Your task to perform on an android device: turn off sleep mode Image 0: 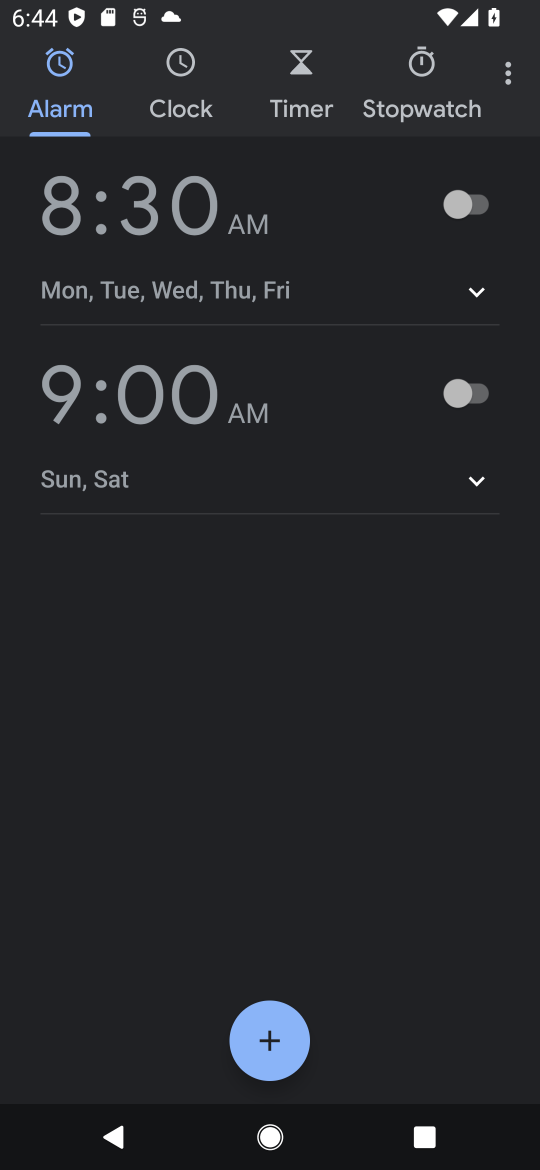
Step 0: press home button
Your task to perform on an android device: turn off sleep mode Image 1: 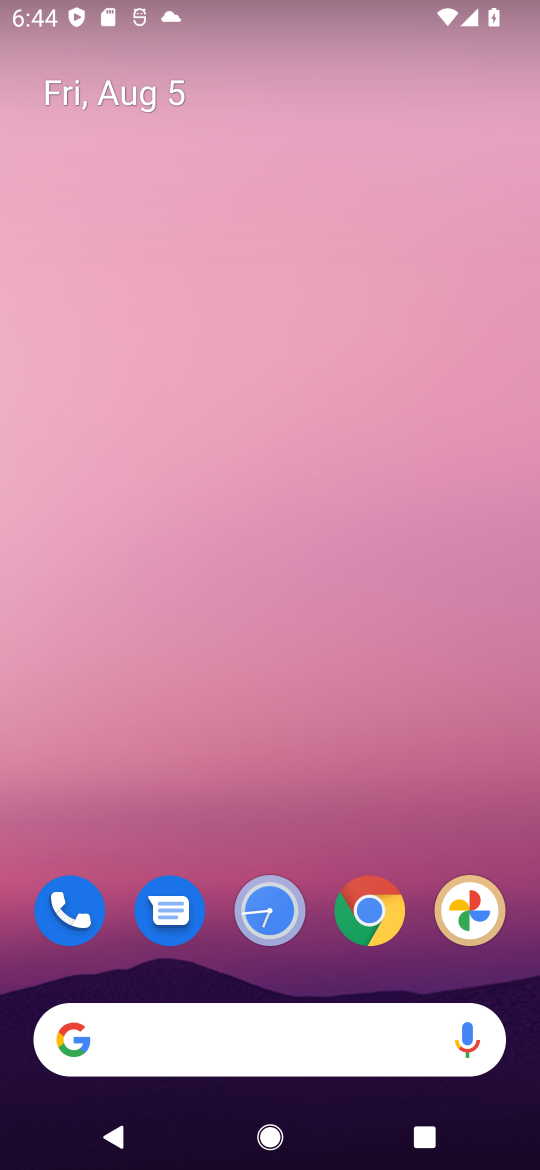
Step 1: drag from (360, 992) to (402, 0)
Your task to perform on an android device: turn off sleep mode Image 2: 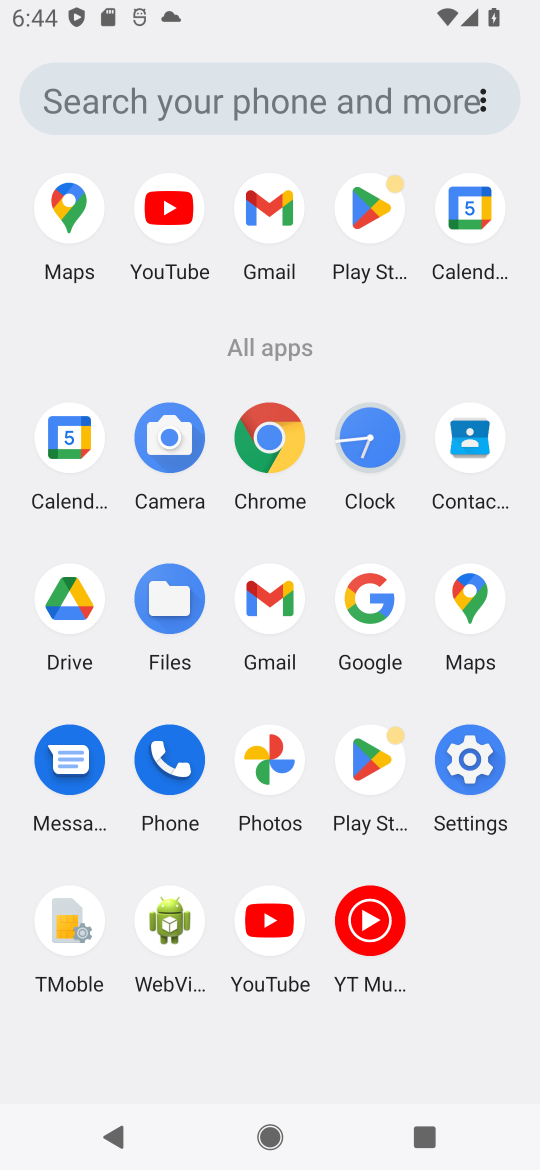
Step 2: click (472, 774)
Your task to perform on an android device: turn off sleep mode Image 3: 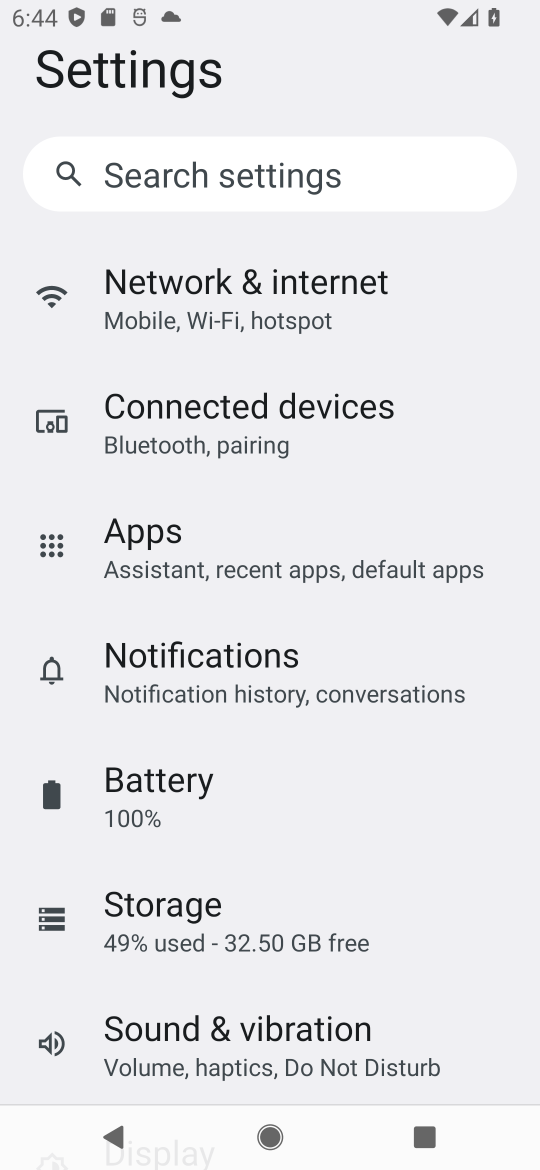
Step 3: drag from (447, 979) to (388, 476)
Your task to perform on an android device: turn off sleep mode Image 4: 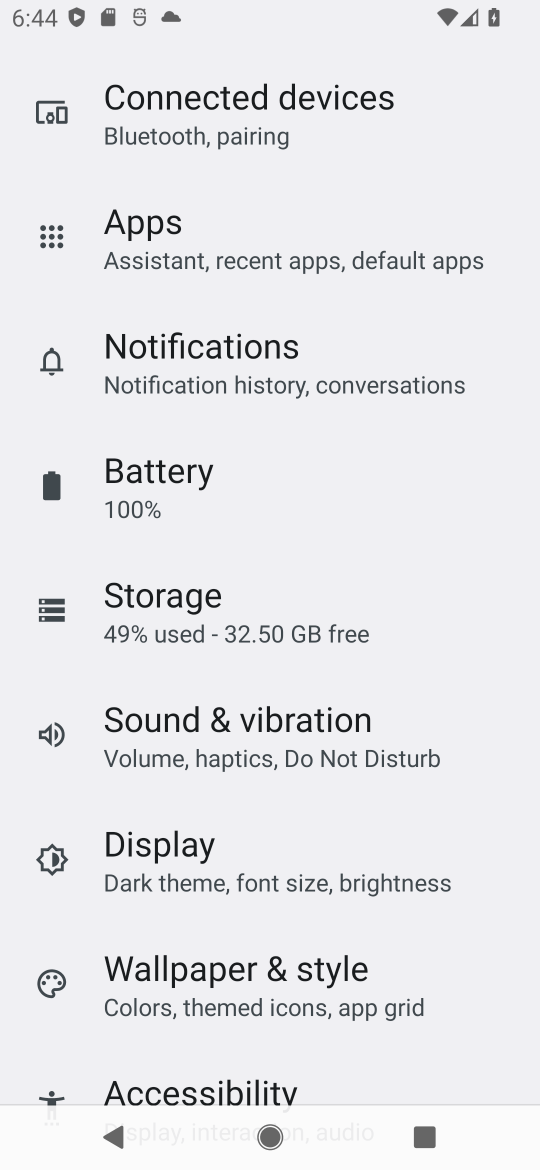
Step 4: drag from (397, 254) to (483, 1000)
Your task to perform on an android device: turn off sleep mode Image 5: 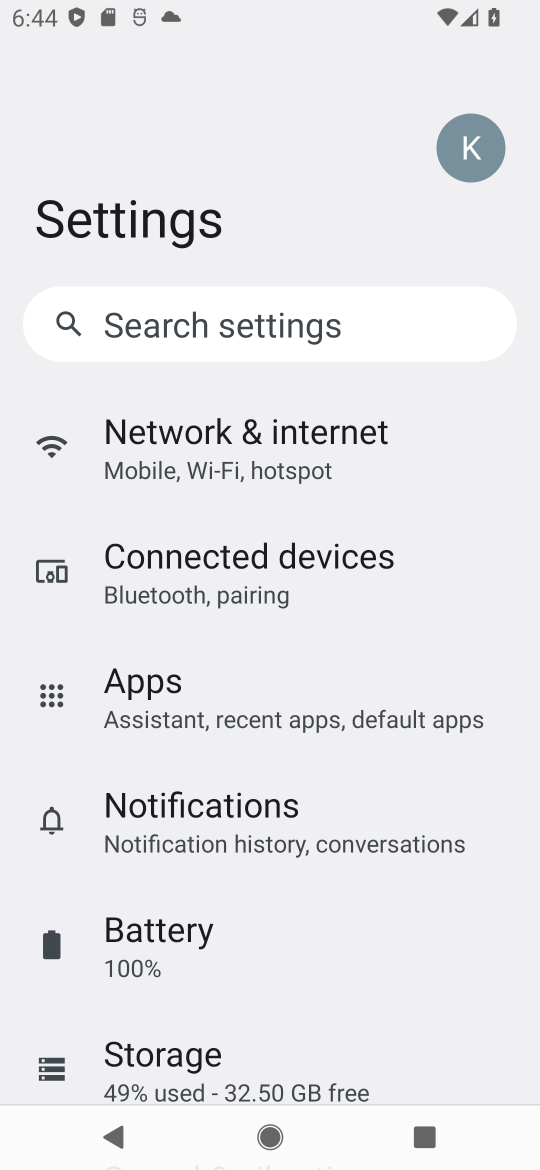
Step 5: click (269, 778)
Your task to perform on an android device: turn off sleep mode Image 6: 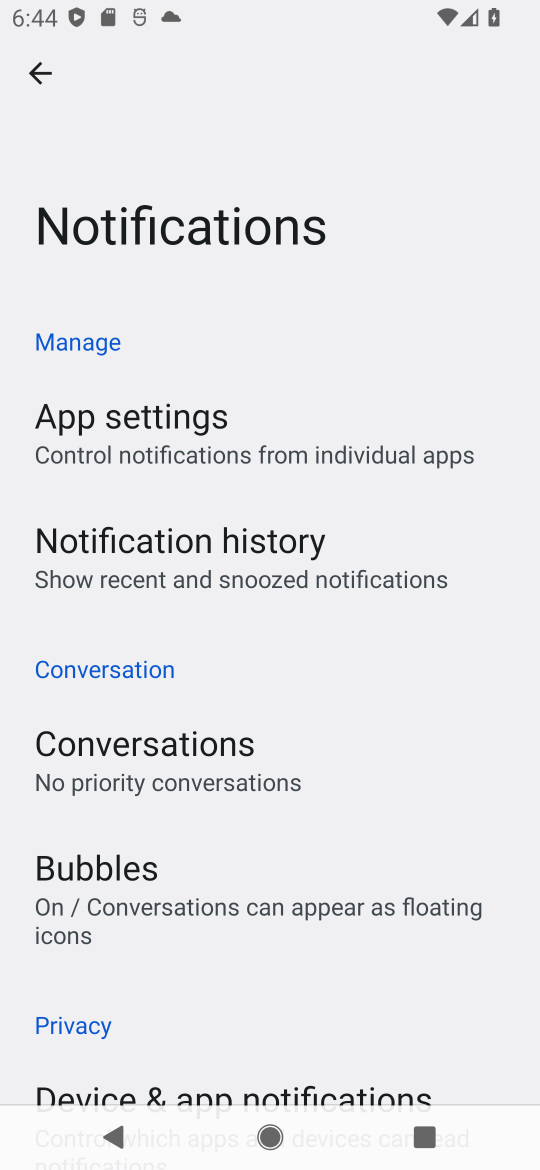
Step 6: task complete